Your task to perform on an android device: What is the recent news? Image 0: 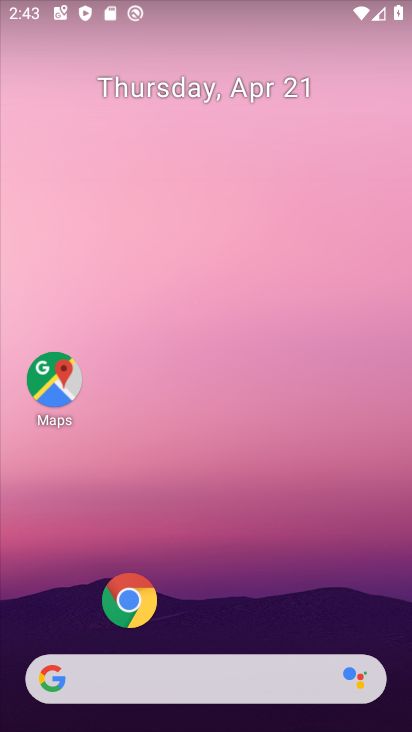
Step 0: click (125, 692)
Your task to perform on an android device: What is the recent news? Image 1: 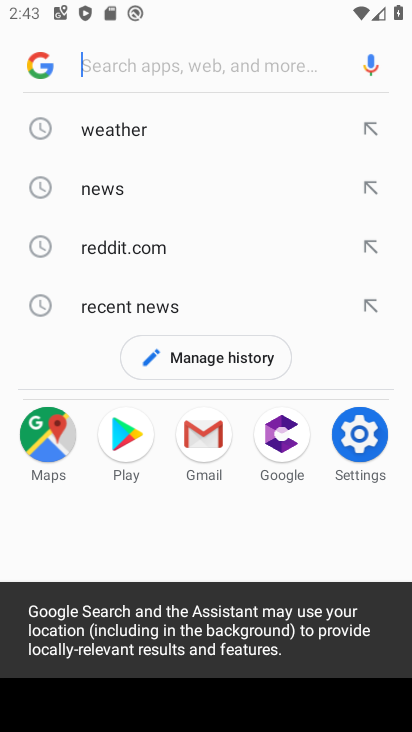
Step 1: click (177, 198)
Your task to perform on an android device: What is the recent news? Image 2: 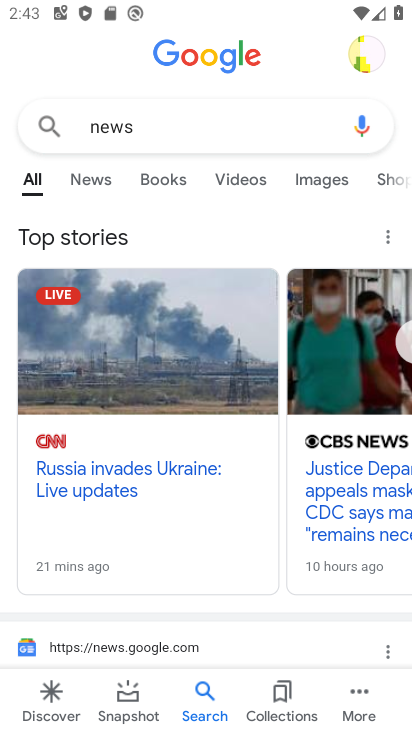
Step 2: click (81, 183)
Your task to perform on an android device: What is the recent news? Image 3: 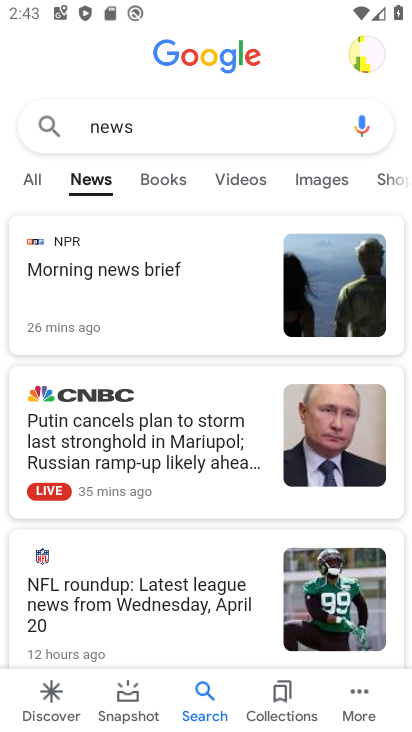
Step 3: task complete